Your task to perform on an android device: Do I have any events today? Image 0: 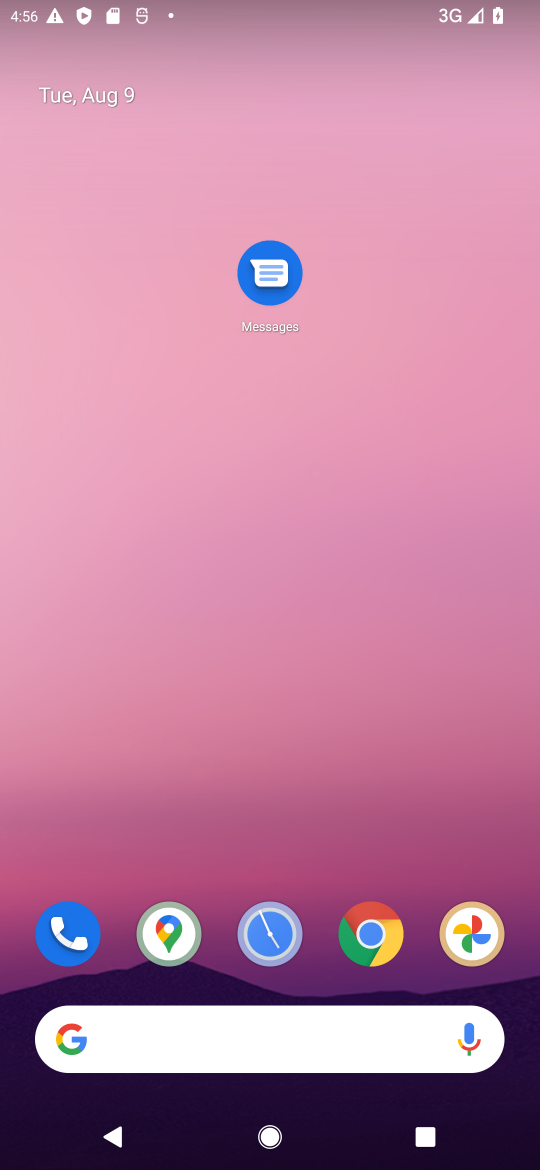
Step 0: drag from (311, 972) to (225, 201)
Your task to perform on an android device: Do I have any events today? Image 1: 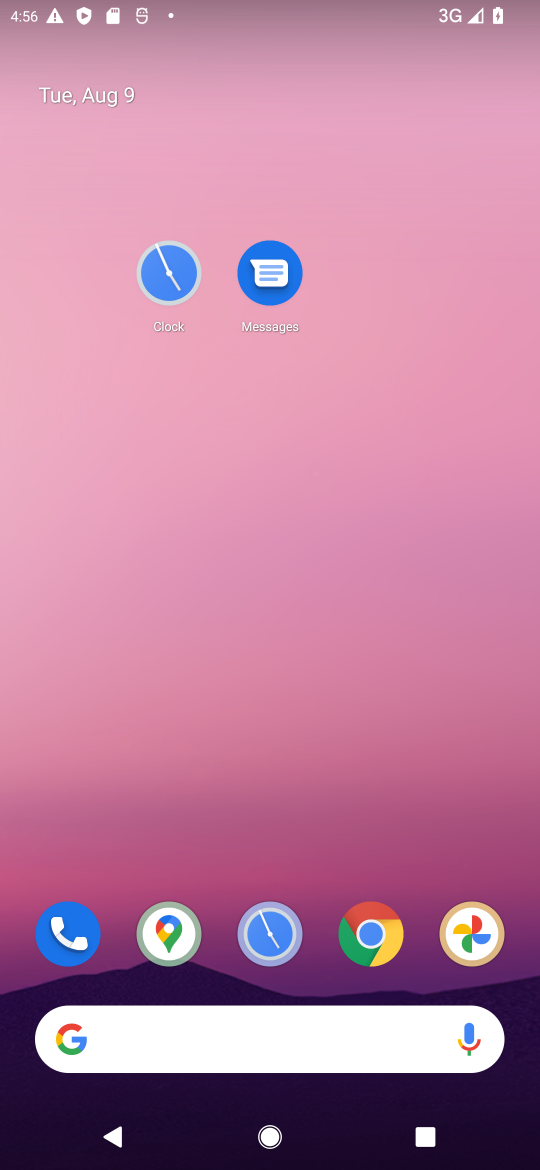
Step 1: drag from (317, 1001) to (328, 371)
Your task to perform on an android device: Do I have any events today? Image 2: 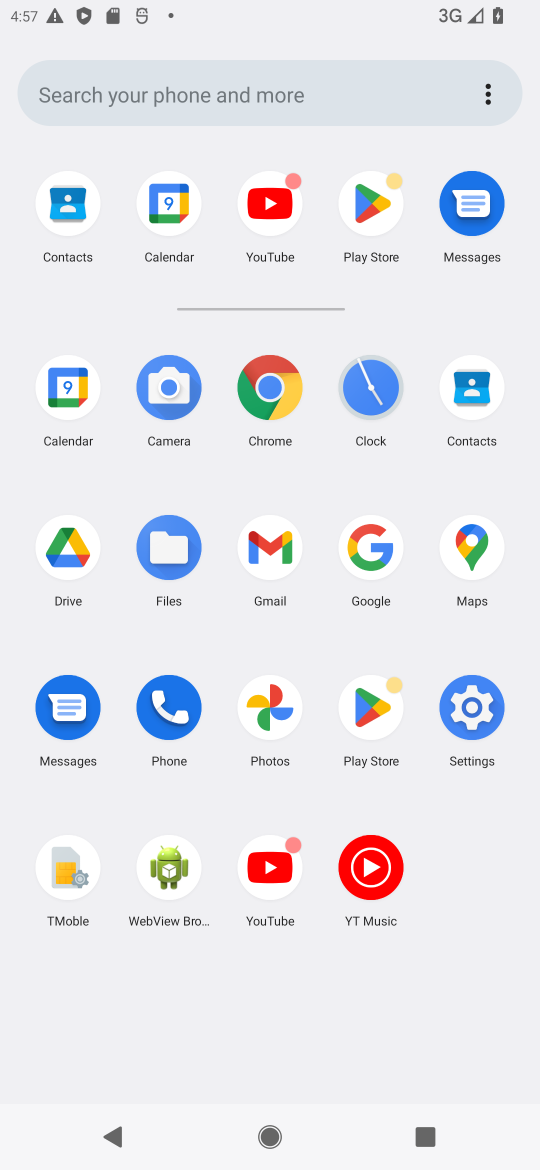
Step 2: click (170, 236)
Your task to perform on an android device: Do I have any events today? Image 3: 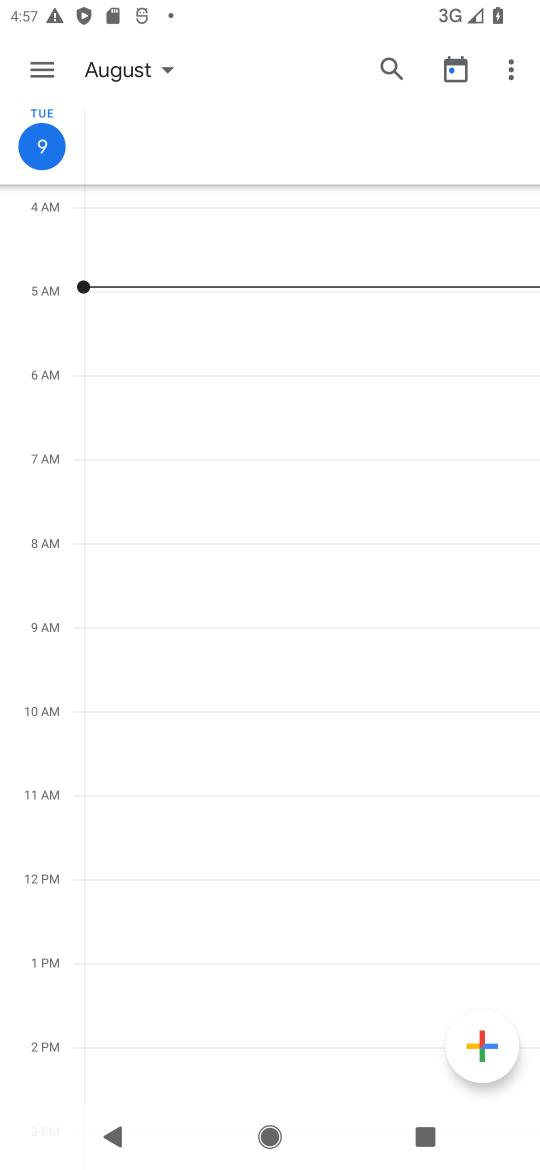
Step 3: task complete